Your task to perform on an android device: Open Chrome and go to settings Image 0: 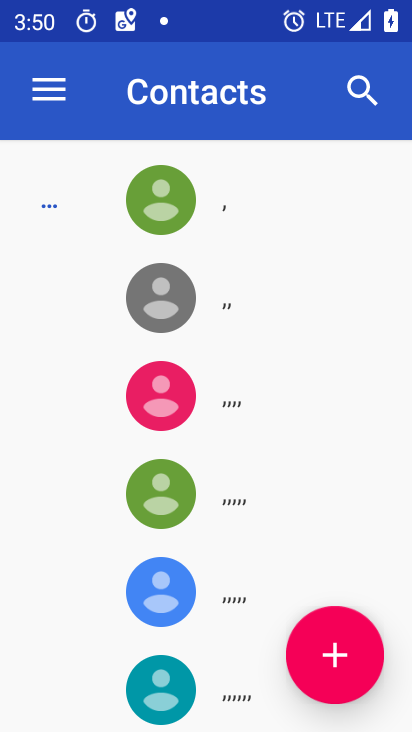
Step 0: press back button
Your task to perform on an android device: Open Chrome and go to settings Image 1: 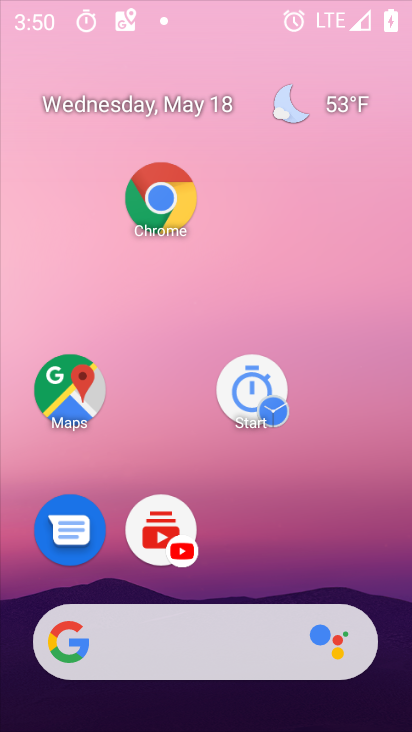
Step 1: press back button
Your task to perform on an android device: Open Chrome and go to settings Image 2: 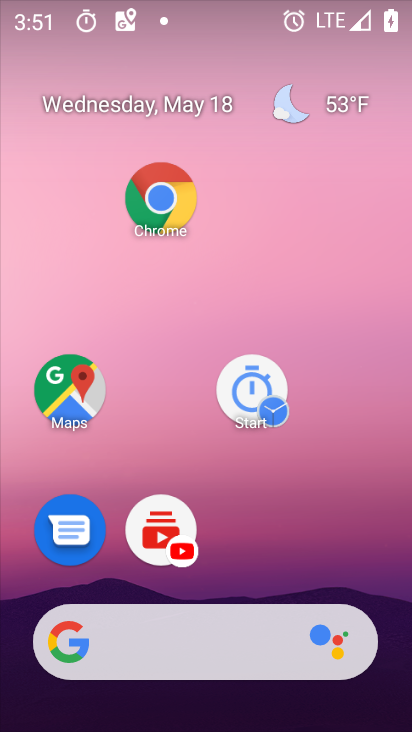
Step 2: drag from (241, 610) to (134, 147)
Your task to perform on an android device: Open Chrome and go to settings Image 3: 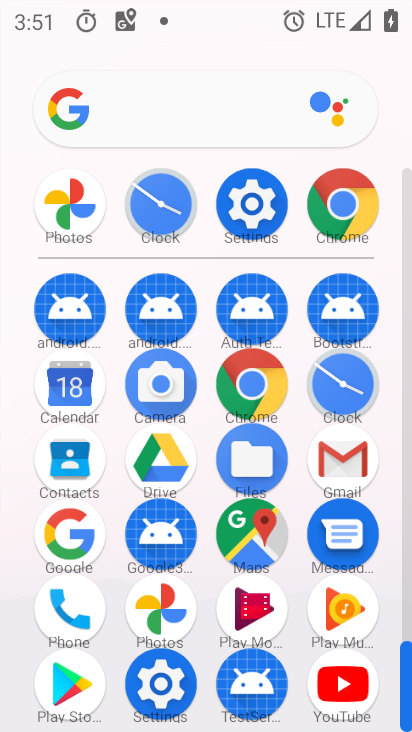
Step 3: click (318, 202)
Your task to perform on an android device: Open Chrome and go to settings Image 4: 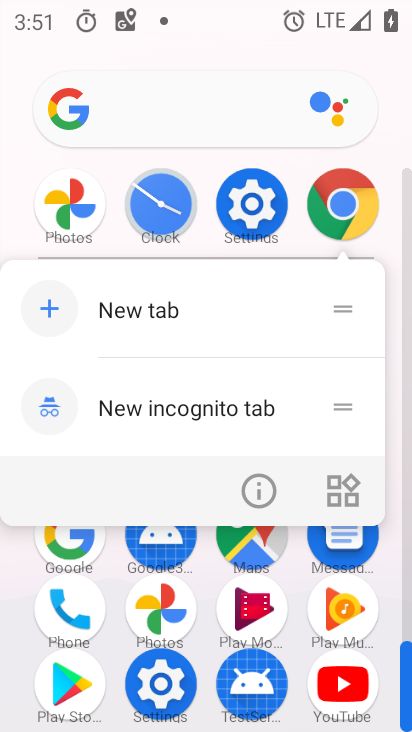
Step 4: click (342, 204)
Your task to perform on an android device: Open Chrome and go to settings Image 5: 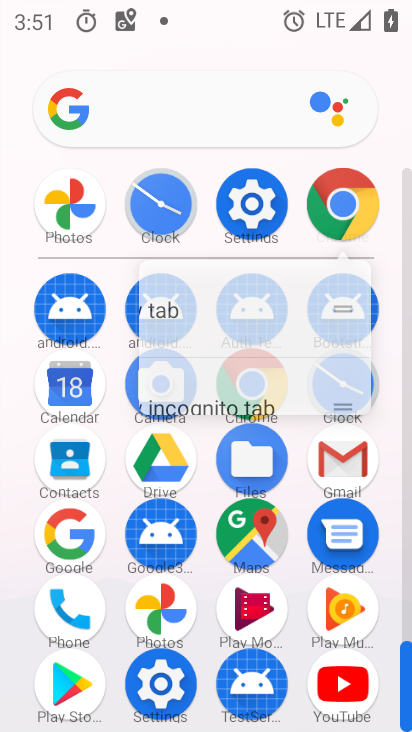
Step 5: click (342, 204)
Your task to perform on an android device: Open Chrome and go to settings Image 6: 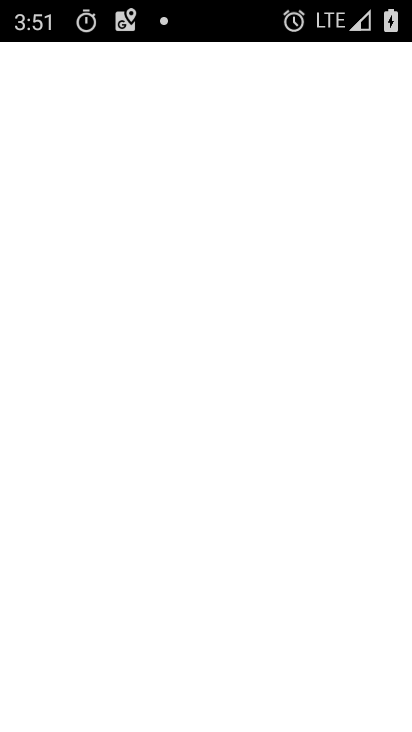
Step 6: click (344, 202)
Your task to perform on an android device: Open Chrome and go to settings Image 7: 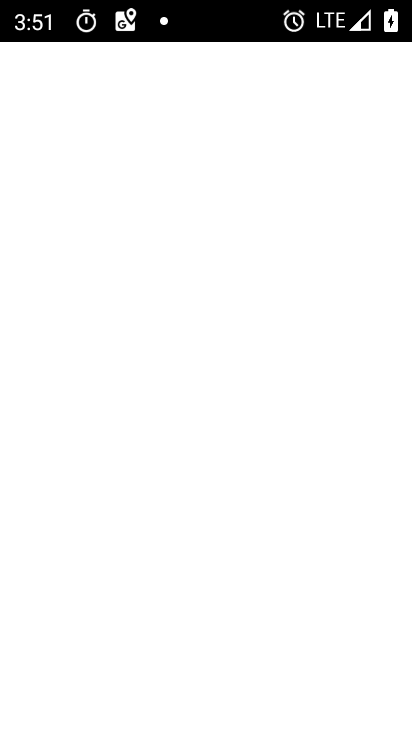
Step 7: click (351, 191)
Your task to perform on an android device: Open Chrome and go to settings Image 8: 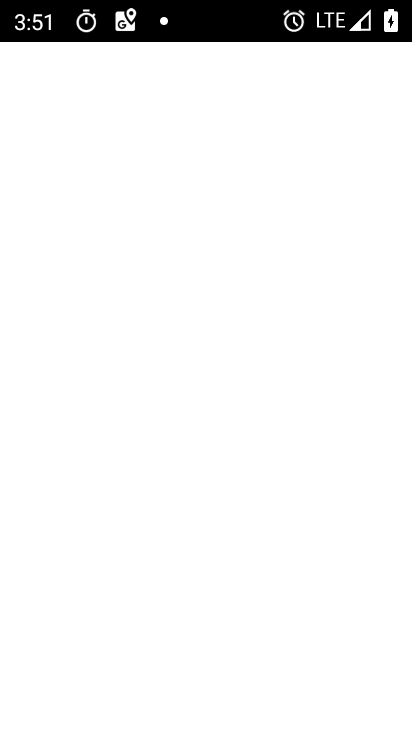
Step 8: click (361, 186)
Your task to perform on an android device: Open Chrome and go to settings Image 9: 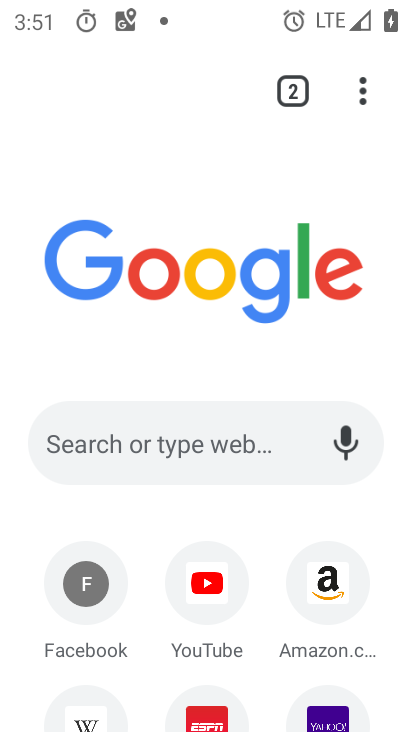
Step 9: drag from (358, 81) to (78, 557)
Your task to perform on an android device: Open Chrome and go to settings Image 10: 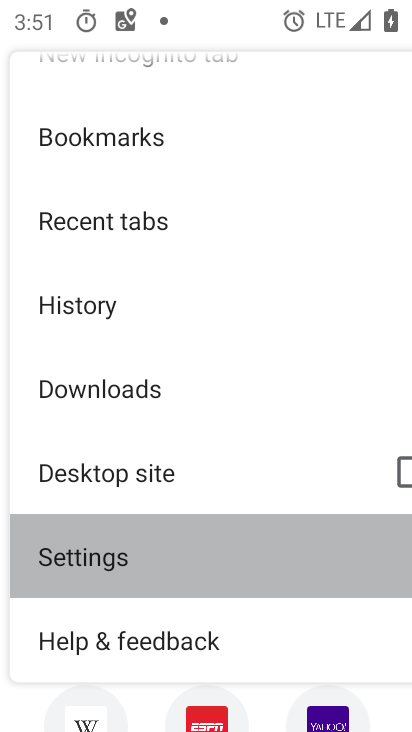
Step 10: click (81, 555)
Your task to perform on an android device: Open Chrome and go to settings Image 11: 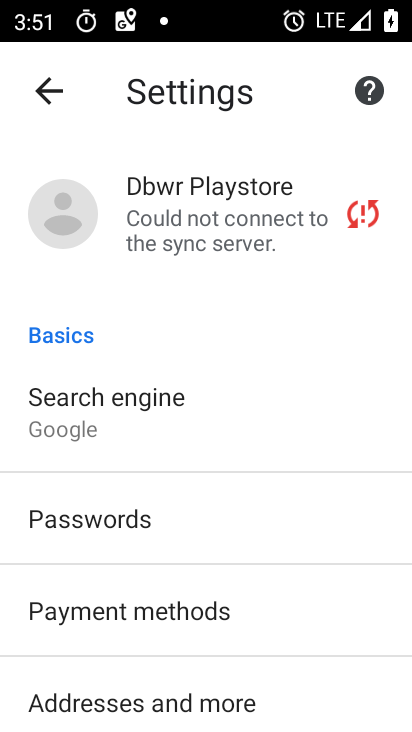
Step 11: task complete